Your task to perform on an android device: Search for the best rated headphones on amazon.com Image 0: 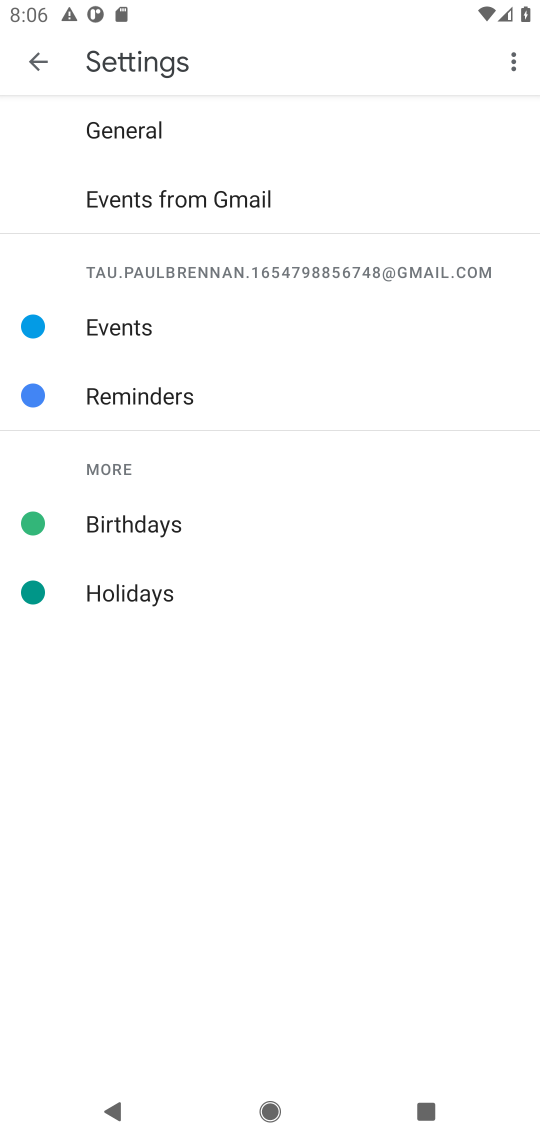
Step 0: task complete